Your task to perform on an android device: toggle improve location accuracy Image 0: 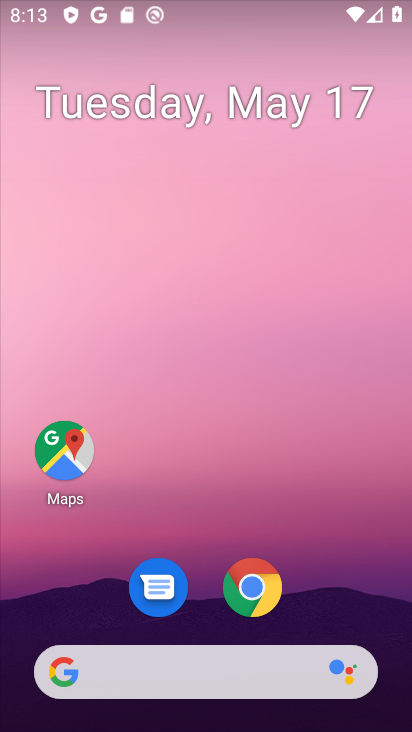
Step 0: drag from (29, 563) to (238, 122)
Your task to perform on an android device: toggle improve location accuracy Image 1: 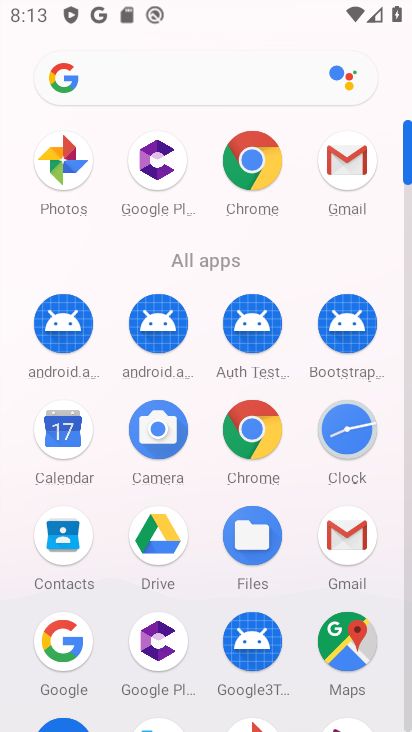
Step 1: drag from (62, 553) to (305, 119)
Your task to perform on an android device: toggle improve location accuracy Image 2: 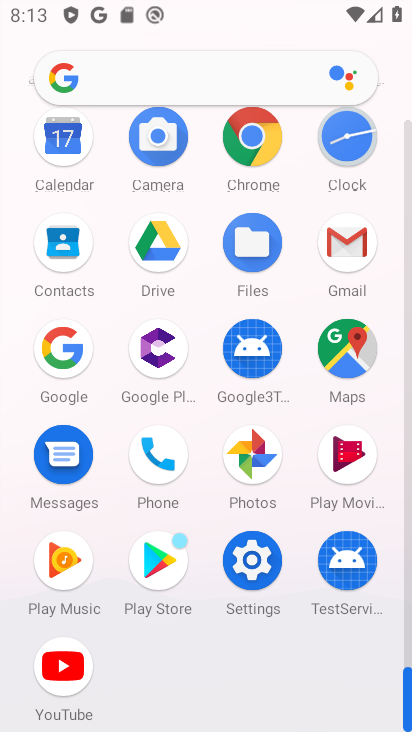
Step 2: click (250, 586)
Your task to perform on an android device: toggle improve location accuracy Image 3: 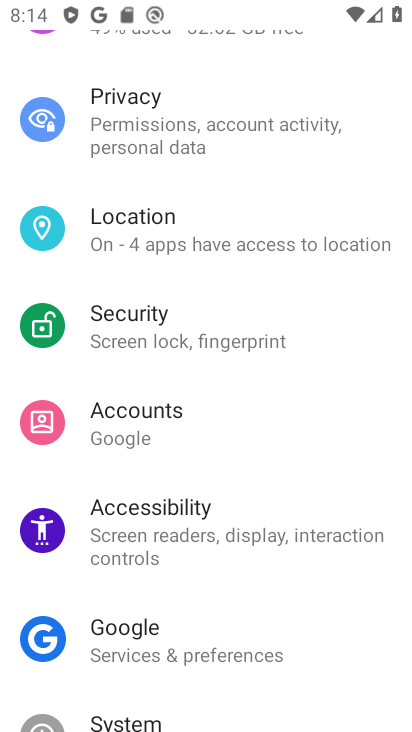
Step 3: click (221, 230)
Your task to perform on an android device: toggle improve location accuracy Image 4: 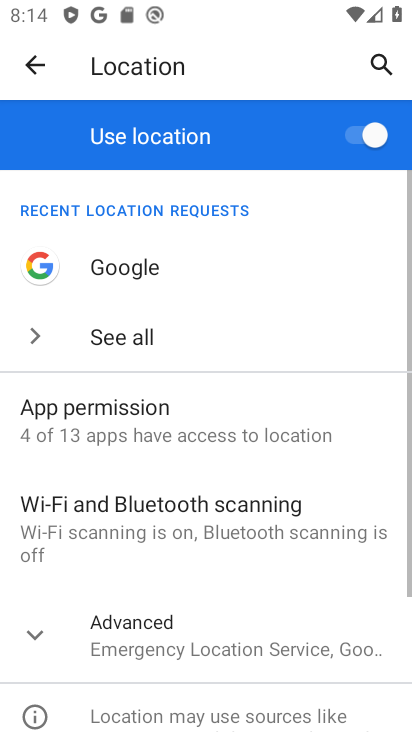
Step 4: click (183, 627)
Your task to perform on an android device: toggle improve location accuracy Image 5: 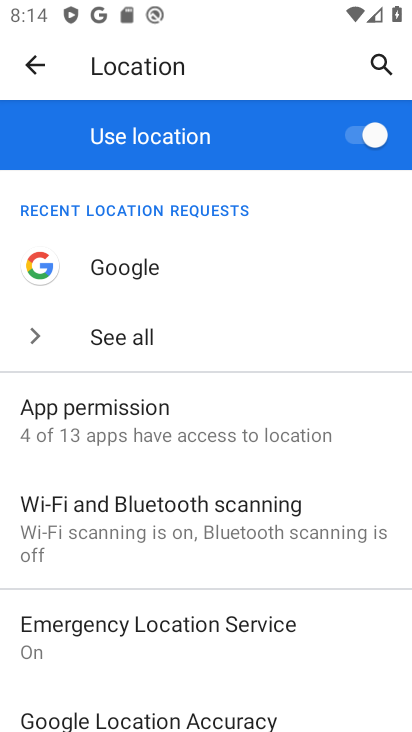
Step 5: drag from (20, 511) to (227, 161)
Your task to perform on an android device: toggle improve location accuracy Image 6: 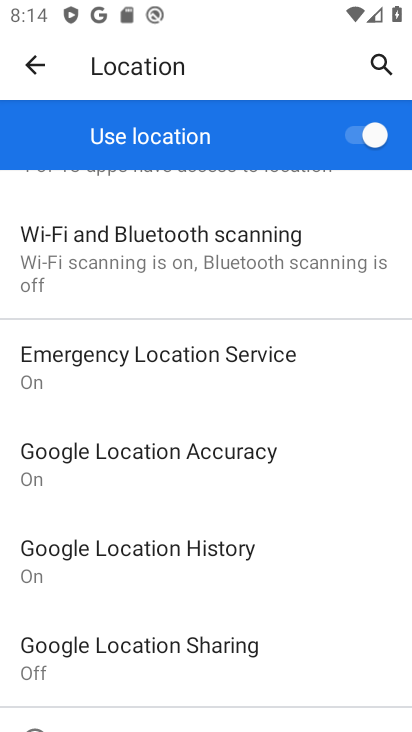
Step 6: click (184, 447)
Your task to perform on an android device: toggle improve location accuracy Image 7: 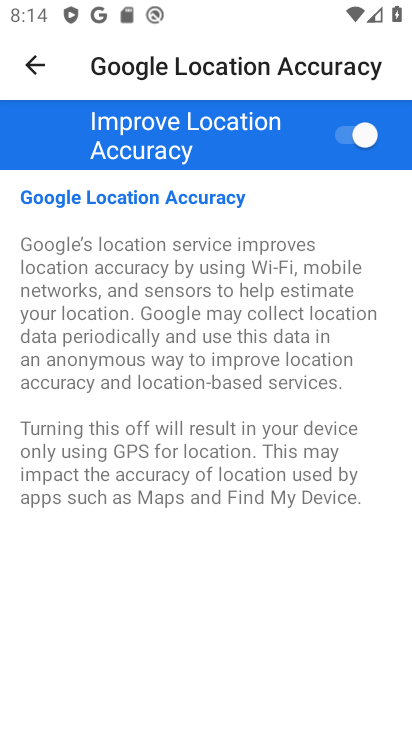
Step 7: click (372, 135)
Your task to perform on an android device: toggle improve location accuracy Image 8: 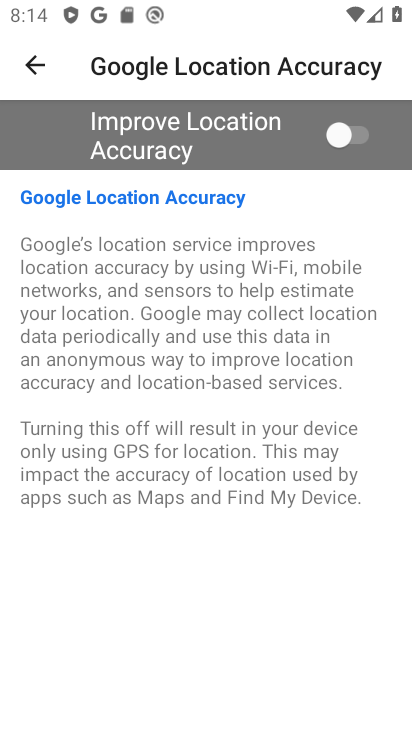
Step 8: task complete